Your task to perform on an android device: find which apps use the phone's location Image 0: 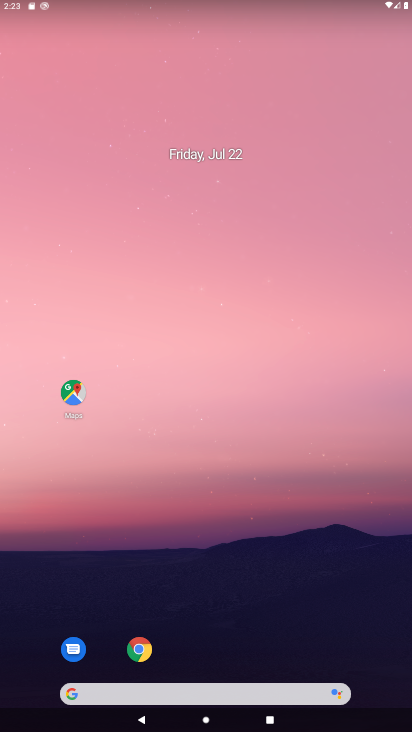
Step 0: drag from (225, 729) to (229, 163)
Your task to perform on an android device: find which apps use the phone's location Image 1: 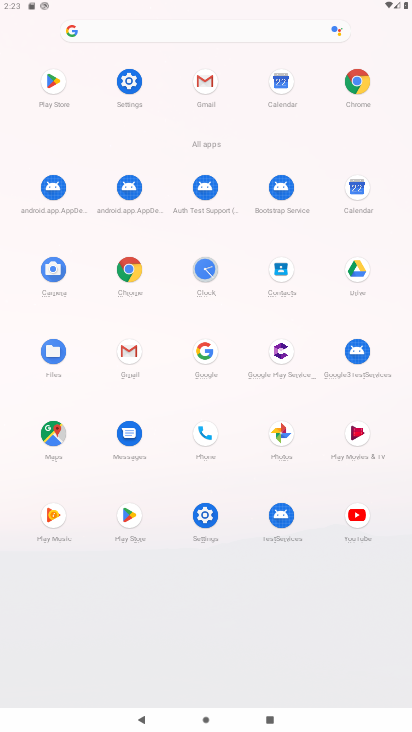
Step 1: click (133, 82)
Your task to perform on an android device: find which apps use the phone's location Image 2: 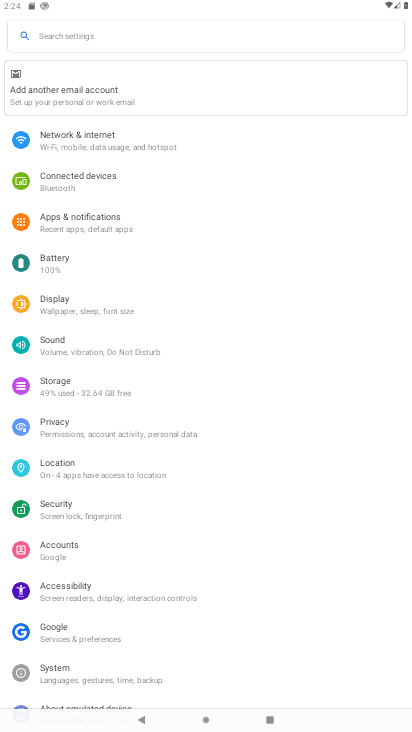
Step 2: click (61, 467)
Your task to perform on an android device: find which apps use the phone's location Image 3: 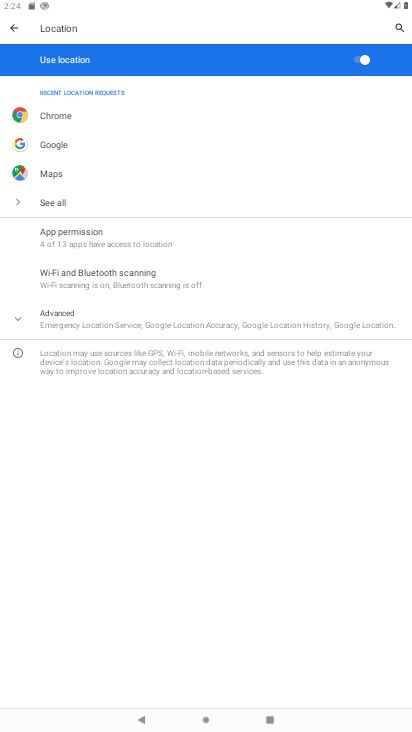
Step 3: click (66, 233)
Your task to perform on an android device: find which apps use the phone's location Image 4: 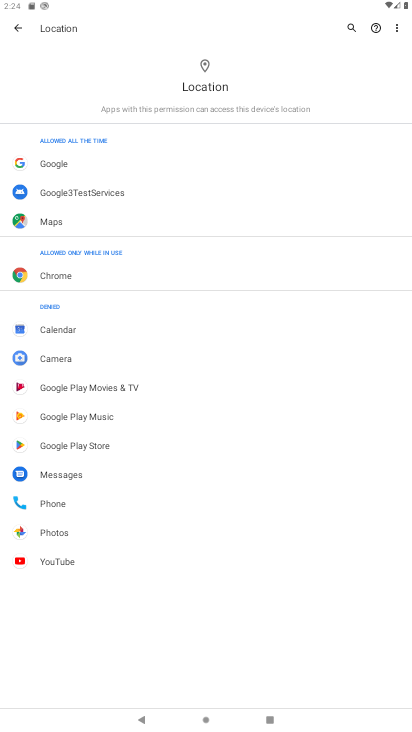
Step 4: task complete